Your task to perform on an android device: Open internet settings Image 0: 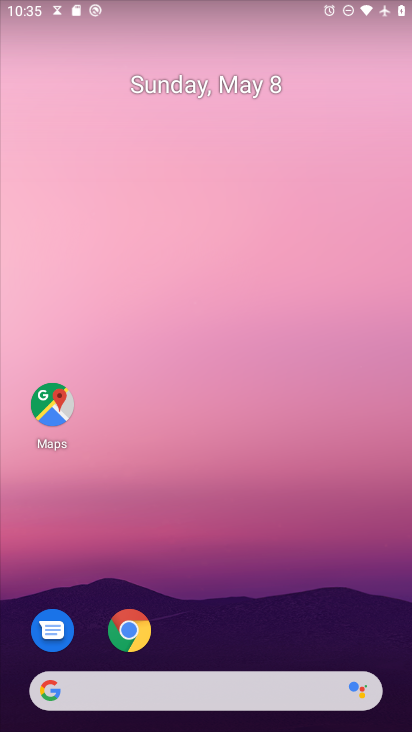
Step 0: drag from (227, 700) to (351, 266)
Your task to perform on an android device: Open internet settings Image 1: 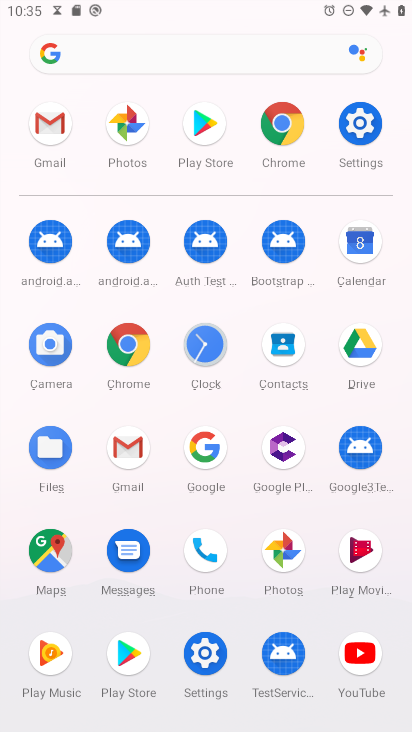
Step 1: click (369, 128)
Your task to perform on an android device: Open internet settings Image 2: 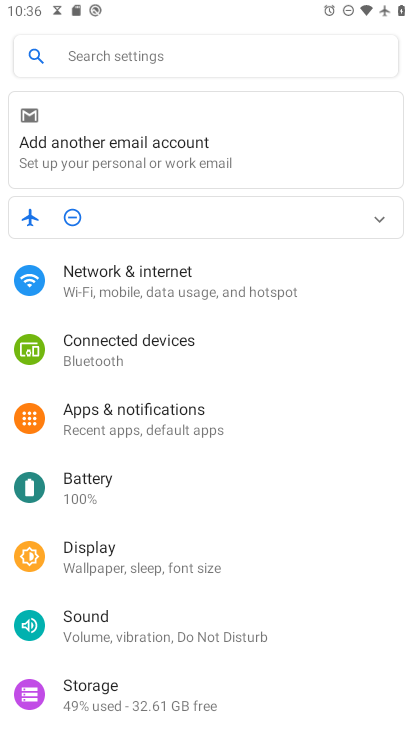
Step 2: click (183, 284)
Your task to perform on an android device: Open internet settings Image 3: 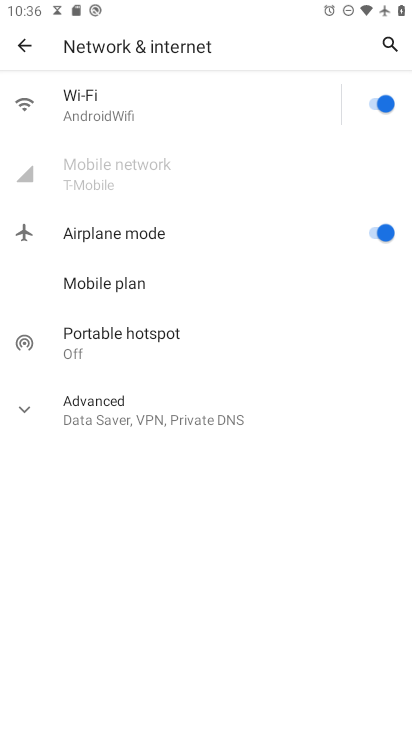
Step 3: task complete